Your task to perform on an android device: turn on notifications settings in the gmail app Image 0: 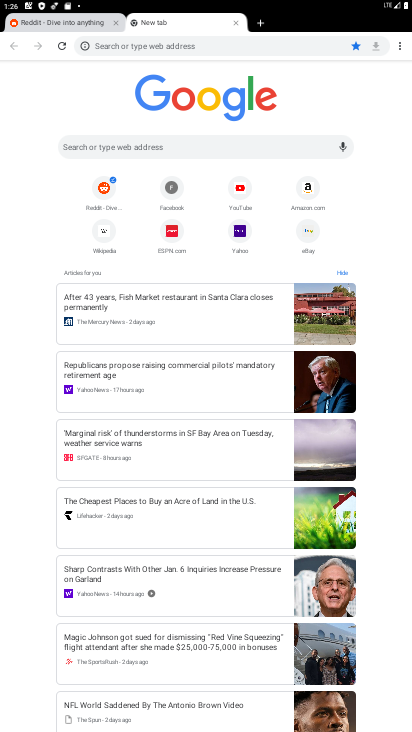
Step 0: press home button
Your task to perform on an android device: turn on notifications settings in the gmail app Image 1: 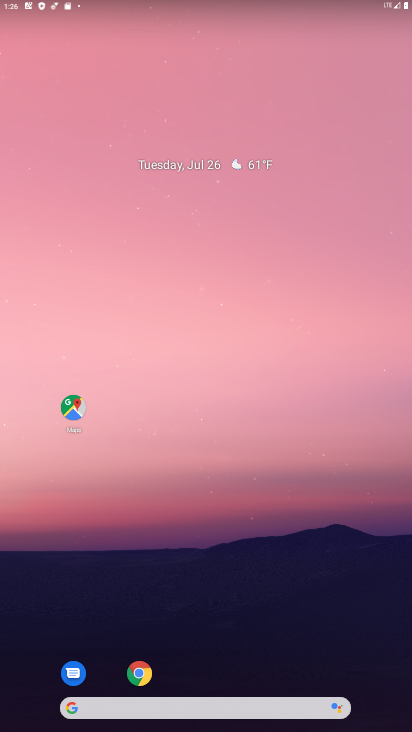
Step 1: drag from (224, 715) to (212, 58)
Your task to perform on an android device: turn on notifications settings in the gmail app Image 2: 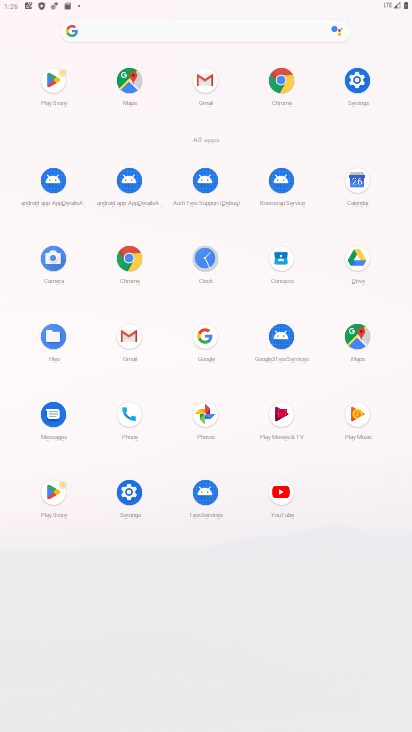
Step 2: click (128, 338)
Your task to perform on an android device: turn on notifications settings in the gmail app Image 3: 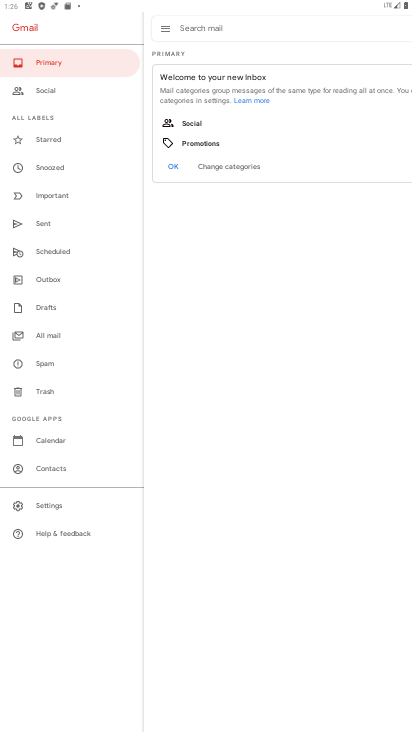
Step 3: click (41, 505)
Your task to perform on an android device: turn on notifications settings in the gmail app Image 4: 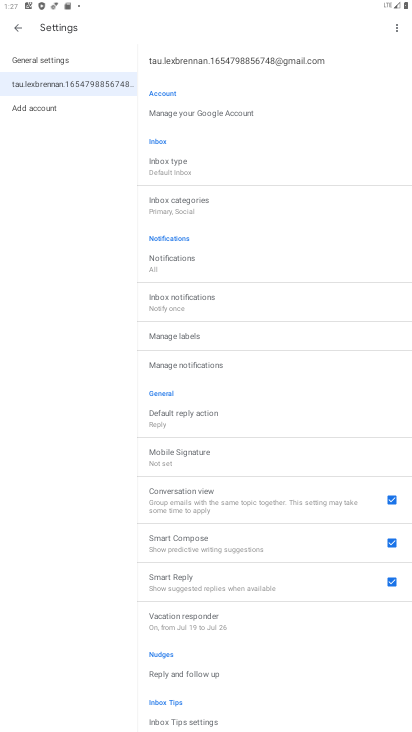
Step 4: task complete